Your task to perform on an android device: Go to wifi settings Image 0: 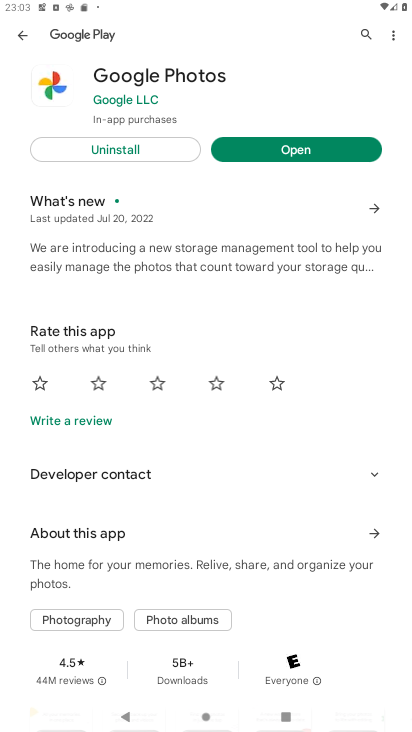
Step 0: press home button
Your task to perform on an android device: Go to wifi settings Image 1: 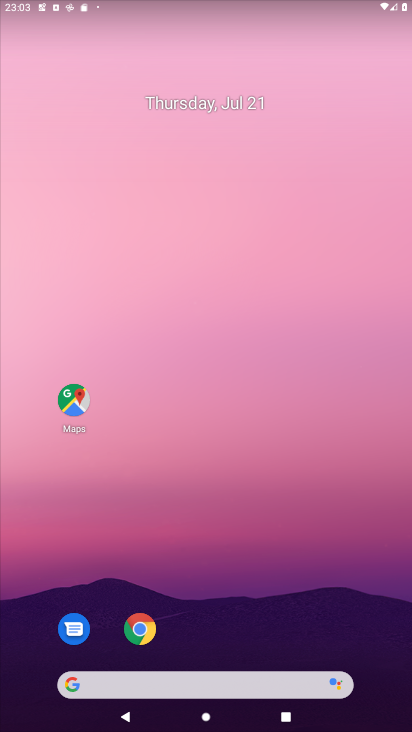
Step 1: drag from (222, 544) to (254, 18)
Your task to perform on an android device: Go to wifi settings Image 2: 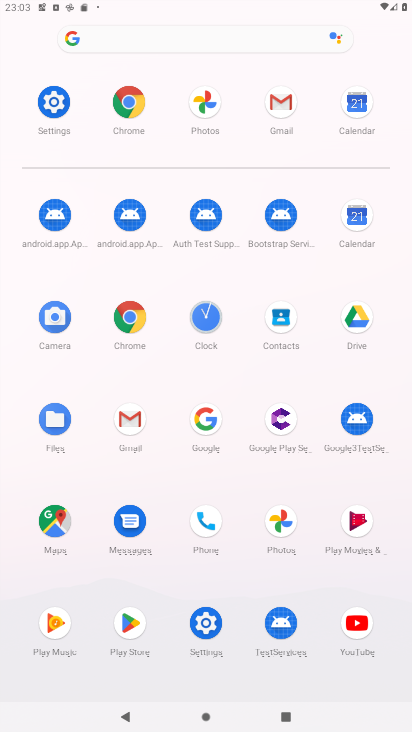
Step 2: click (60, 112)
Your task to perform on an android device: Go to wifi settings Image 3: 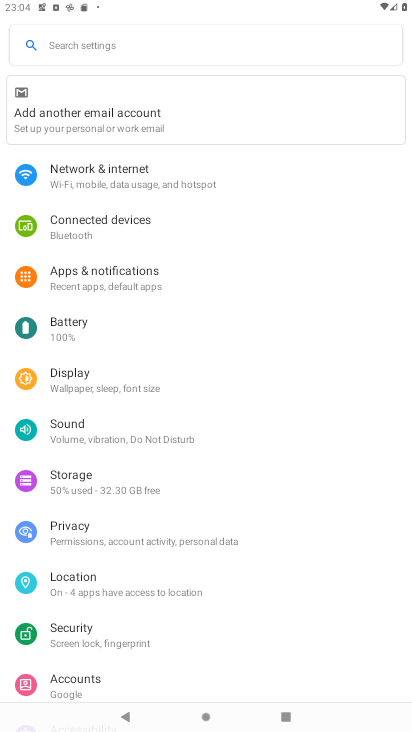
Step 3: click (213, 177)
Your task to perform on an android device: Go to wifi settings Image 4: 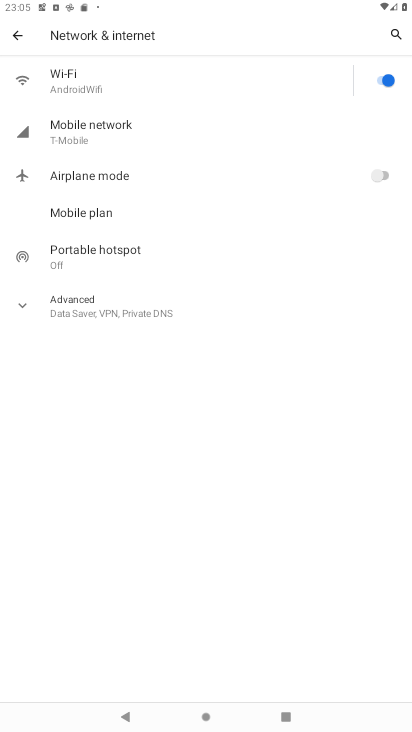
Step 4: click (177, 82)
Your task to perform on an android device: Go to wifi settings Image 5: 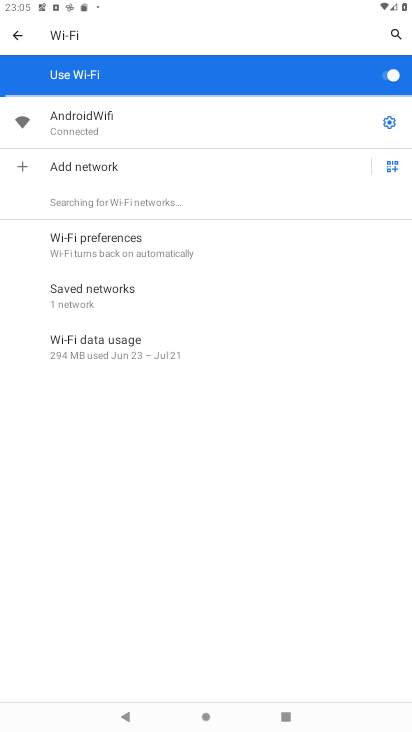
Step 5: task complete